Your task to perform on an android device: delete browsing data in the chrome app Image 0: 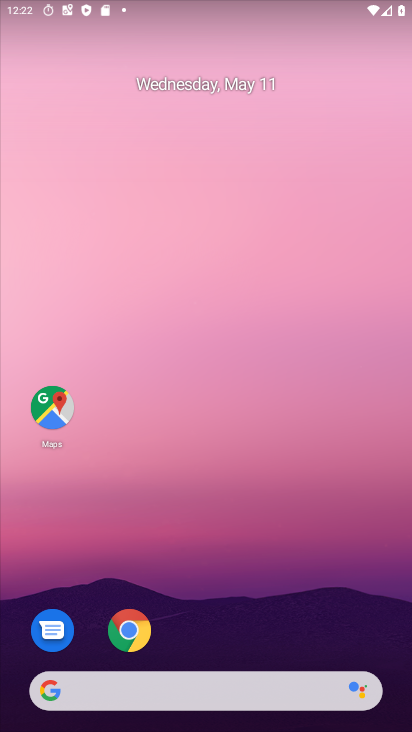
Step 0: click (136, 628)
Your task to perform on an android device: delete browsing data in the chrome app Image 1: 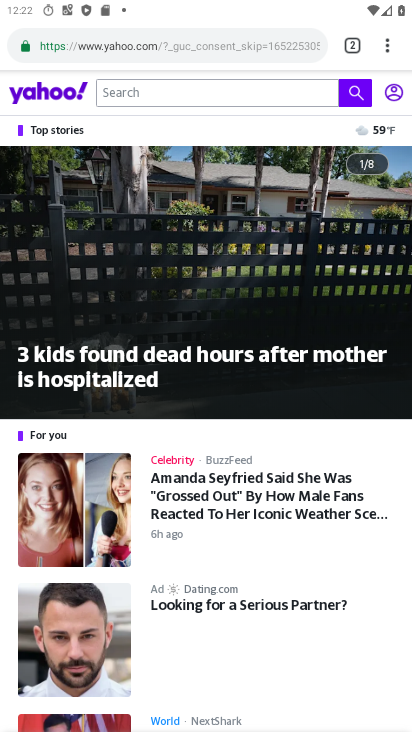
Step 1: drag from (388, 45) to (271, 268)
Your task to perform on an android device: delete browsing data in the chrome app Image 2: 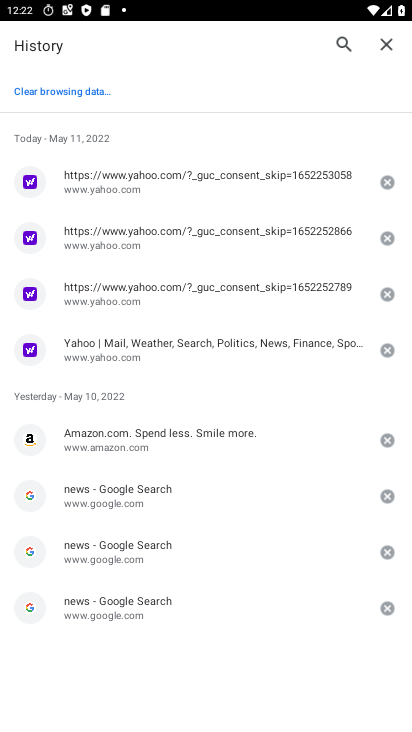
Step 2: click (96, 86)
Your task to perform on an android device: delete browsing data in the chrome app Image 3: 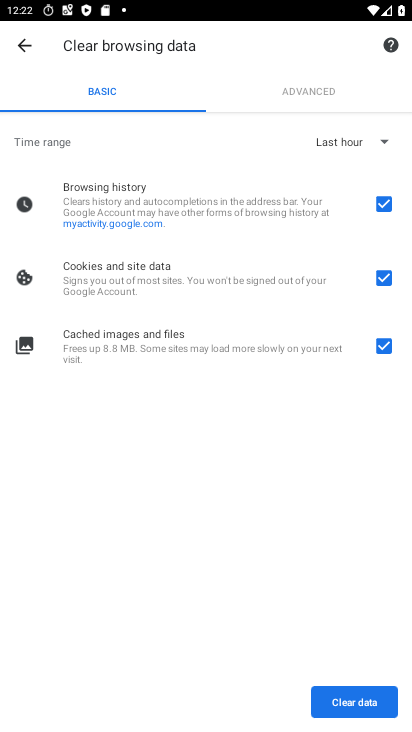
Step 3: click (338, 136)
Your task to perform on an android device: delete browsing data in the chrome app Image 4: 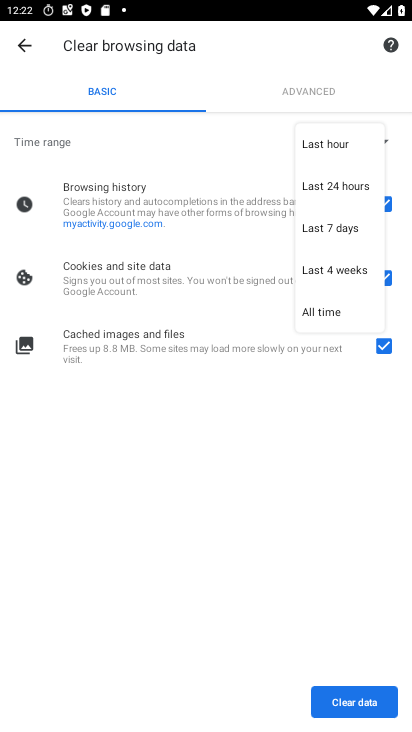
Step 4: click (338, 305)
Your task to perform on an android device: delete browsing data in the chrome app Image 5: 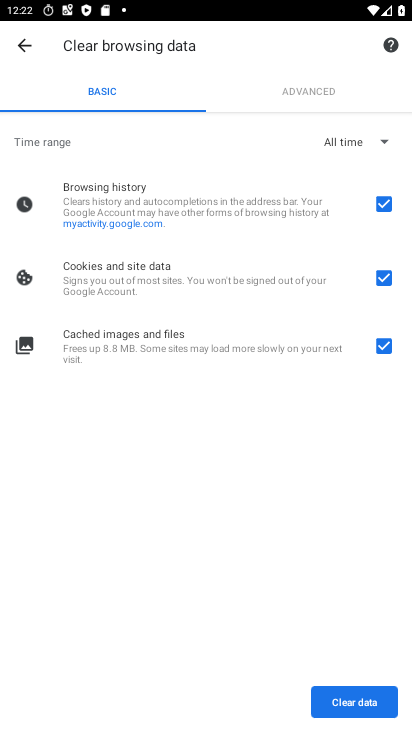
Step 5: click (355, 702)
Your task to perform on an android device: delete browsing data in the chrome app Image 6: 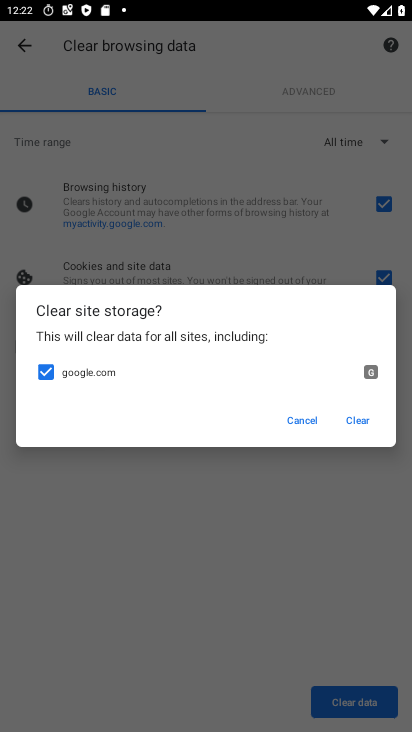
Step 6: click (351, 416)
Your task to perform on an android device: delete browsing data in the chrome app Image 7: 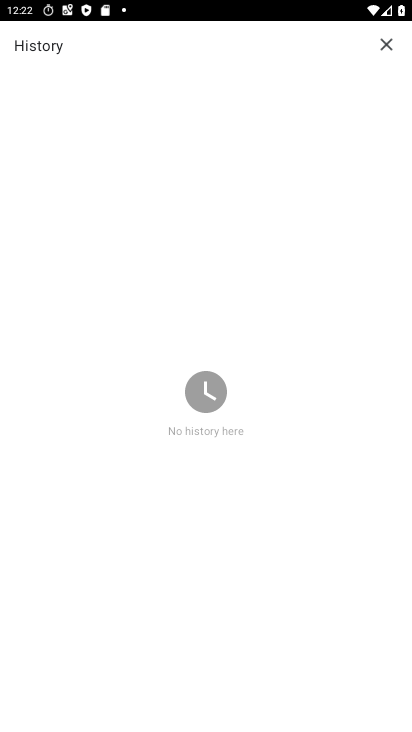
Step 7: task complete